Your task to perform on an android device: Search for pizza restaurants on Maps Image 0: 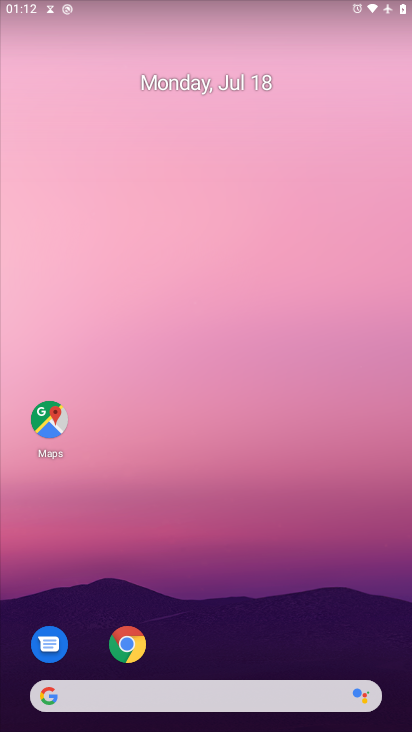
Step 0: press home button
Your task to perform on an android device: Search for pizza restaurants on Maps Image 1: 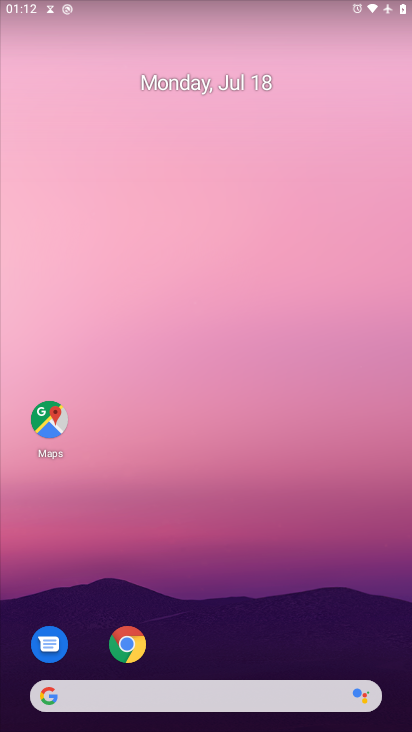
Step 1: drag from (212, 617) to (207, 74)
Your task to perform on an android device: Search for pizza restaurants on Maps Image 2: 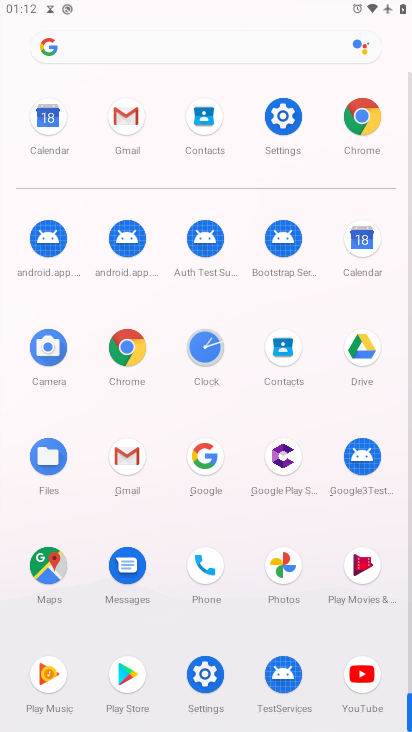
Step 2: click (38, 574)
Your task to perform on an android device: Search for pizza restaurants on Maps Image 3: 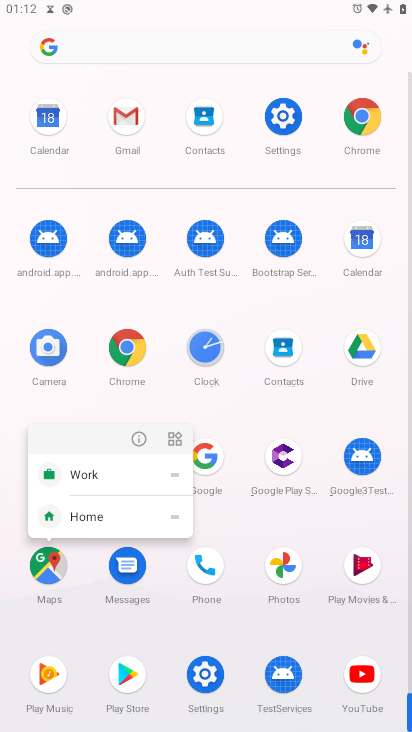
Step 3: click (36, 574)
Your task to perform on an android device: Search for pizza restaurants on Maps Image 4: 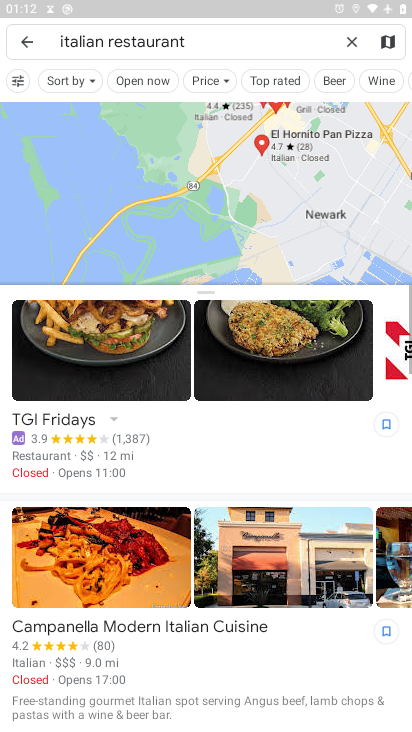
Step 4: click (355, 40)
Your task to perform on an android device: Search for pizza restaurants on Maps Image 5: 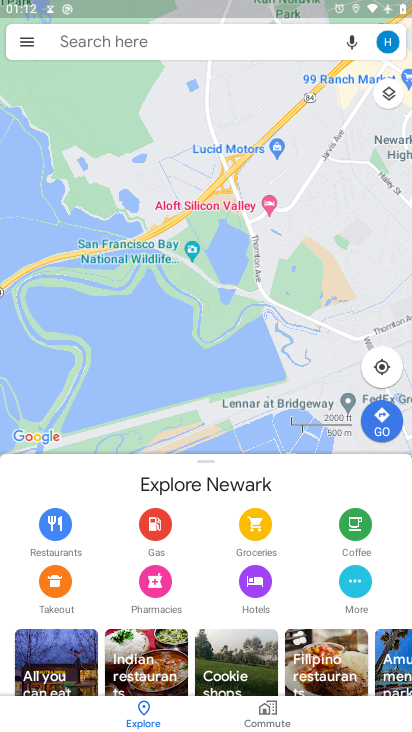
Step 5: click (192, 31)
Your task to perform on an android device: Search for pizza restaurants on Maps Image 6: 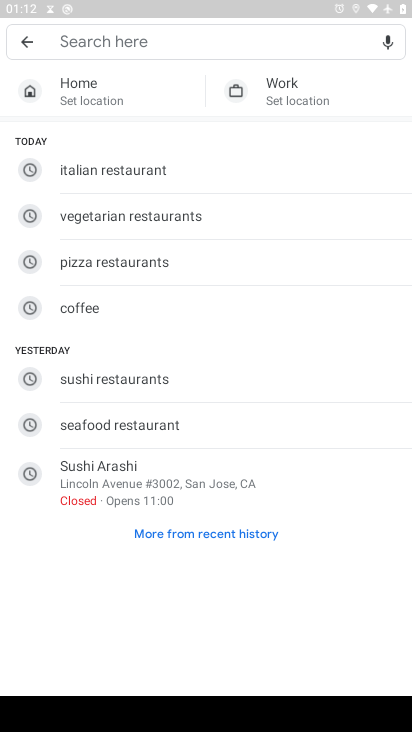
Step 6: click (104, 269)
Your task to perform on an android device: Search for pizza restaurants on Maps Image 7: 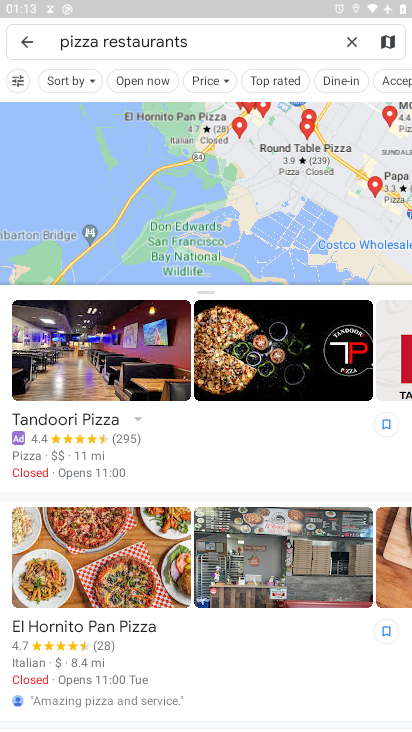
Step 7: task complete